Your task to perform on an android device: Open calendar and show me the second week of next month Image 0: 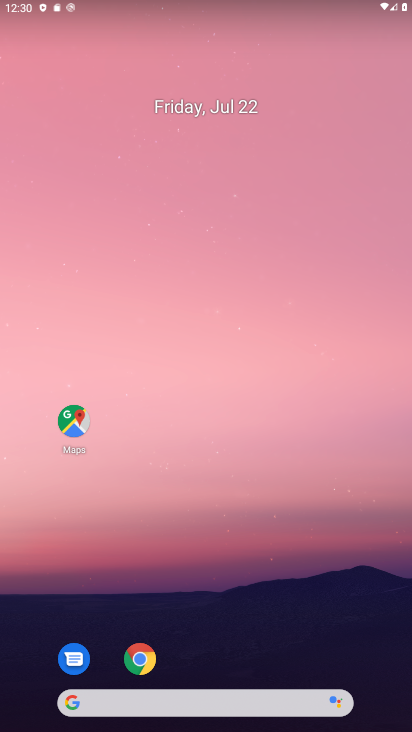
Step 0: task complete